Your task to perform on an android device: uninstall "YouTube Kids" Image 0: 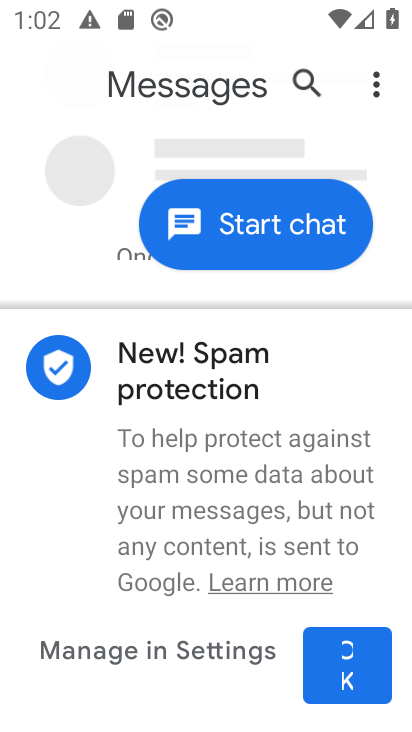
Step 0: press home button
Your task to perform on an android device: uninstall "YouTube Kids" Image 1: 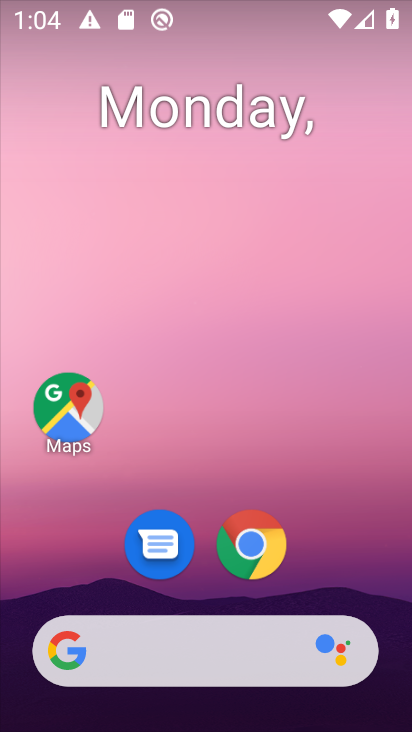
Step 1: drag from (397, 606) to (251, 9)
Your task to perform on an android device: uninstall "YouTube Kids" Image 2: 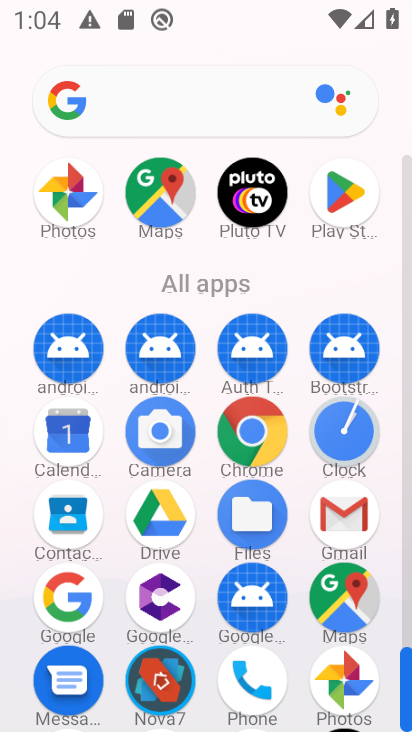
Step 2: click (339, 202)
Your task to perform on an android device: uninstall "YouTube Kids" Image 3: 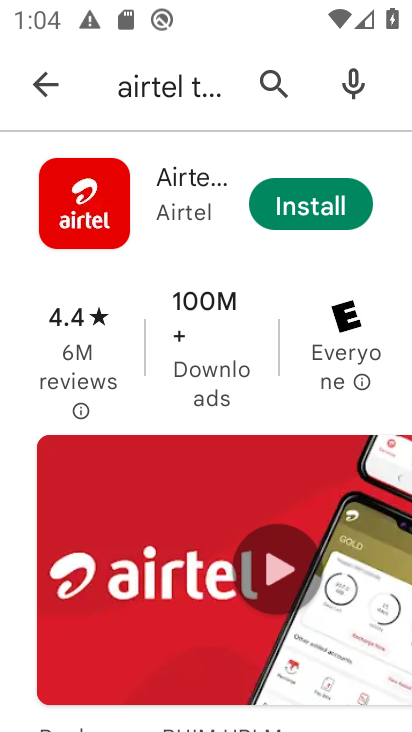
Step 3: press back button
Your task to perform on an android device: uninstall "YouTube Kids" Image 4: 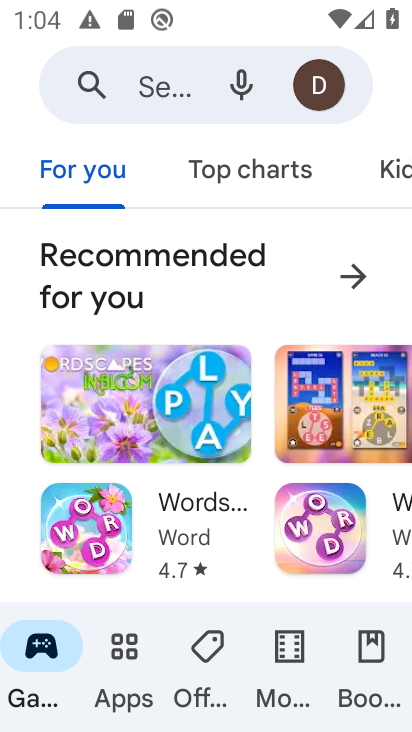
Step 4: click (142, 87)
Your task to perform on an android device: uninstall "YouTube Kids" Image 5: 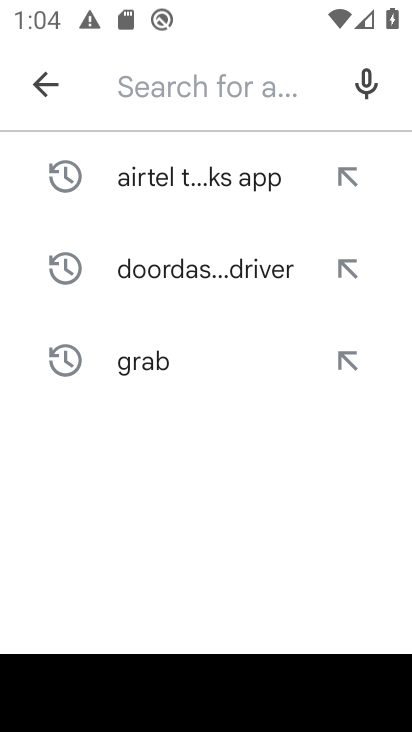
Step 5: type "YouTube Kids"
Your task to perform on an android device: uninstall "YouTube Kids" Image 6: 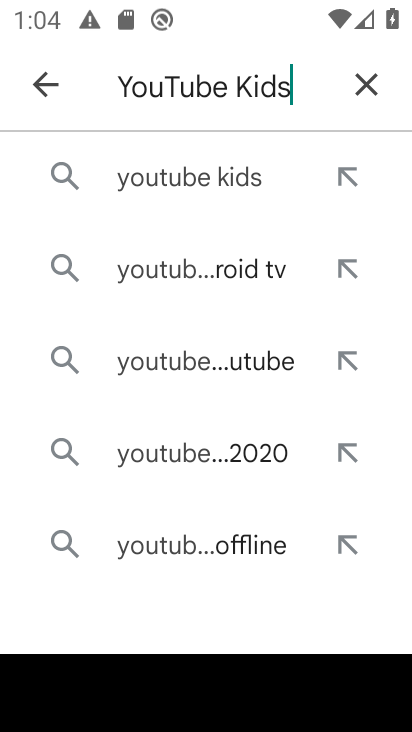
Step 6: click (174, 178)
Your task to perform on an android device: uninstall "YouTube Kids" Image 7: 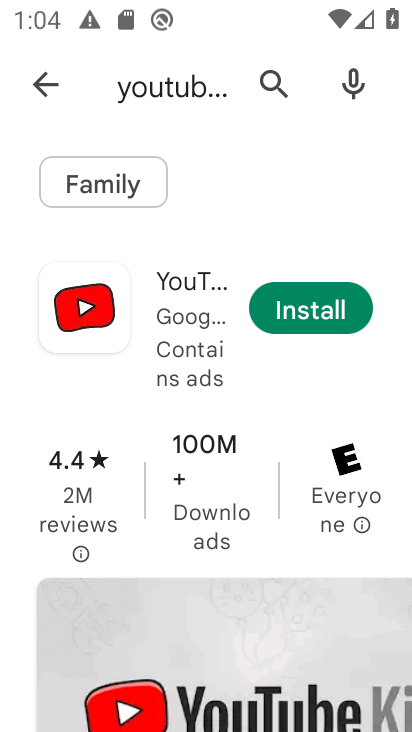
Step 7: task complete